Your task to perform on an android device: snooze an email in the gmail app Image 0: 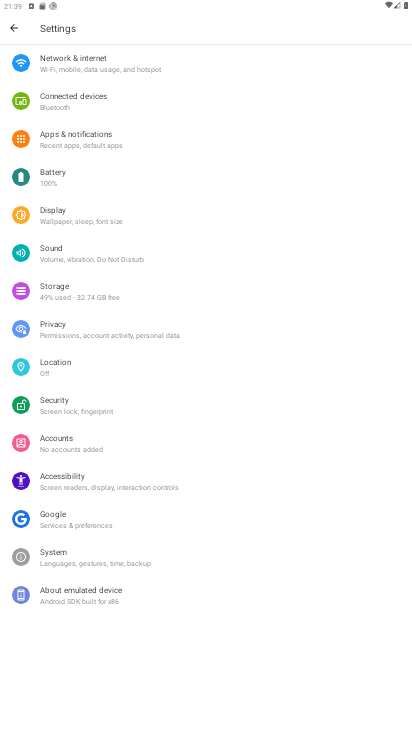
Step 0: press home button
Your task to perform on an android device: snooze an email in the gmail app Image 1: 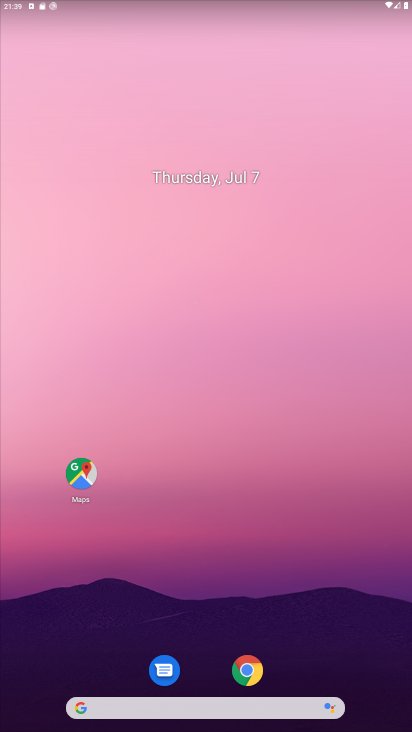
Step 1: drag from (104, 590) to (333, 172)
Your task to perform on an android device: snooze an email in the gmail app Image 2: 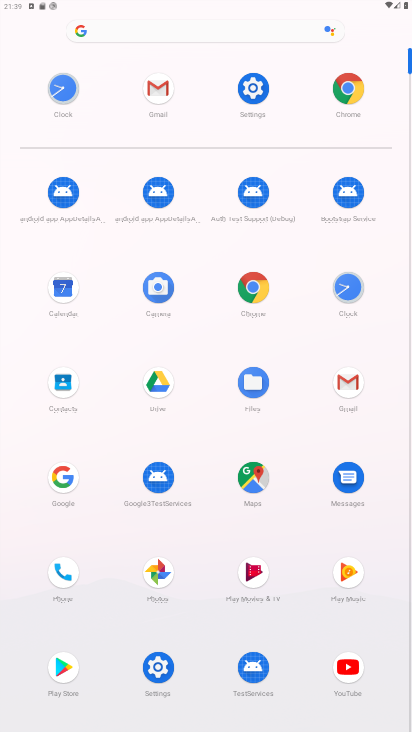
Step 2: click (347, 389)
Your task to perform on an android device: snooze an email in the gmail app Image 3: 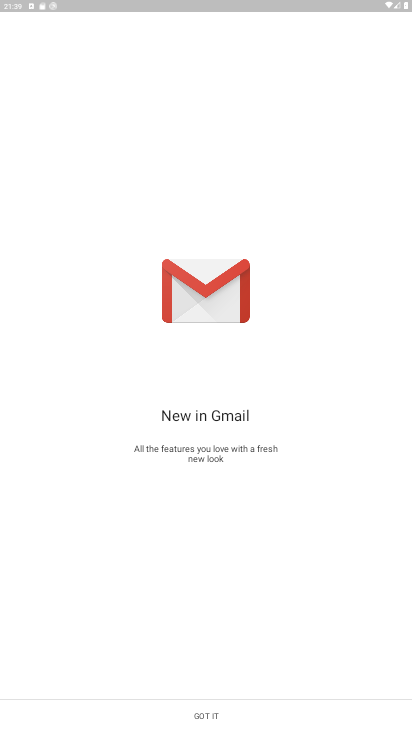
Step 3: task complete